Your task to perform on an android device: Open settings on Google Maps Image 0: 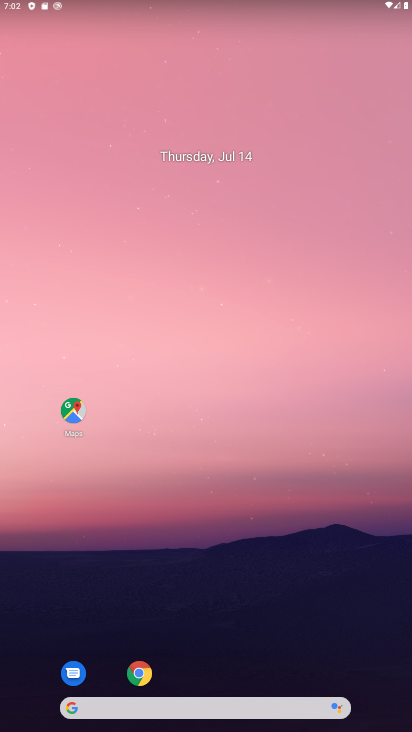
Step 0: click (63, 412)
Your task to perform on an android device: Open settings on Google Maps Image 1: 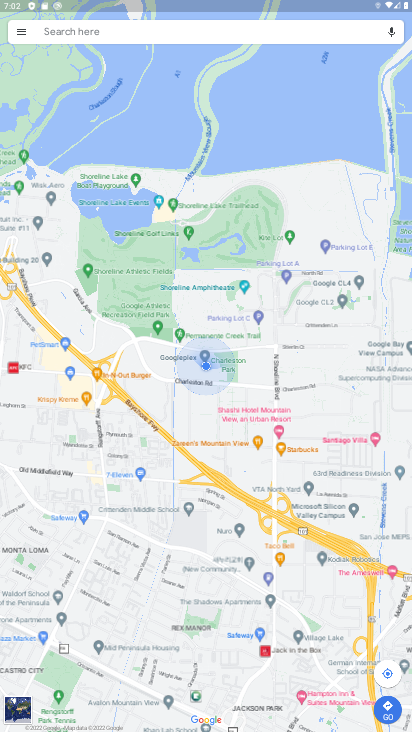
Step 1: click (20, 36)
Your task to perform on an android device: Open settings on Google Maps Image 2: 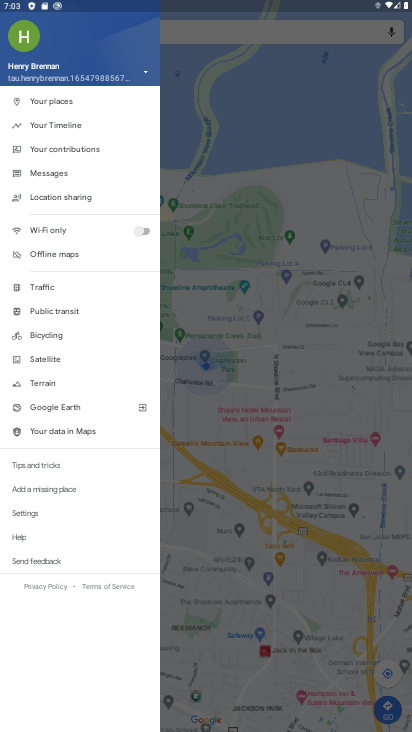
Step 2: click (47, 517)
Your task to perform on an android device: Open settings on Google Maps Image 3: 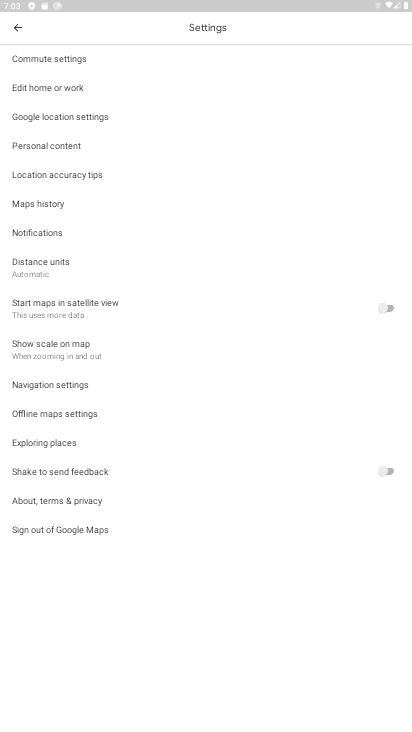
Step 3: task complete